Your task to perform on an android device: turn on sleep mode Image 0: 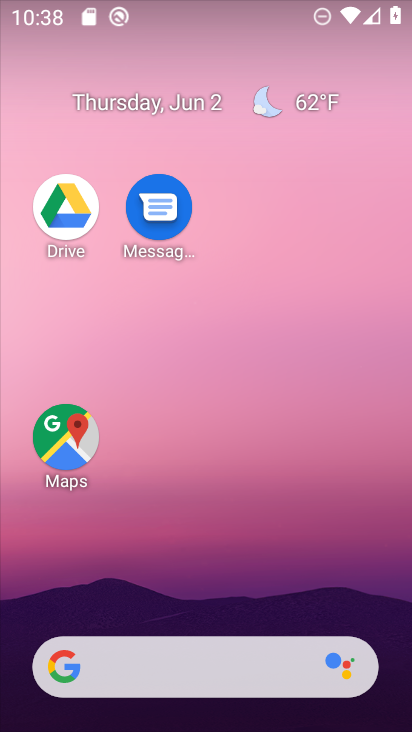
Step 0: drag from (222, 565) to (0, 262)
Your task to perform on an android device: turn on sleep mode Image 1: 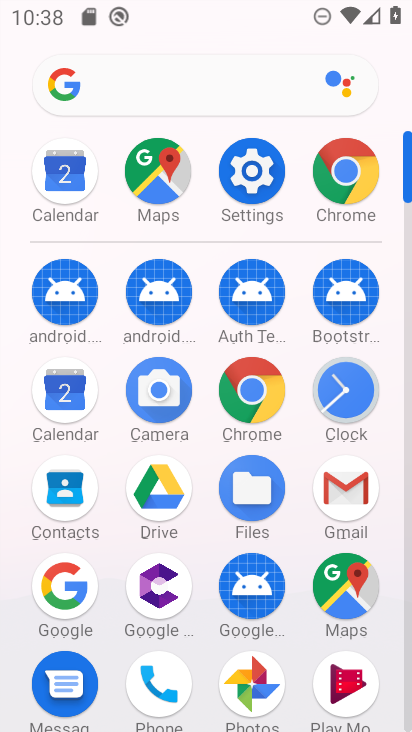
Step 1: click (270, 255)
Your task to perform on an android device: turn on sleep mode Image 2: 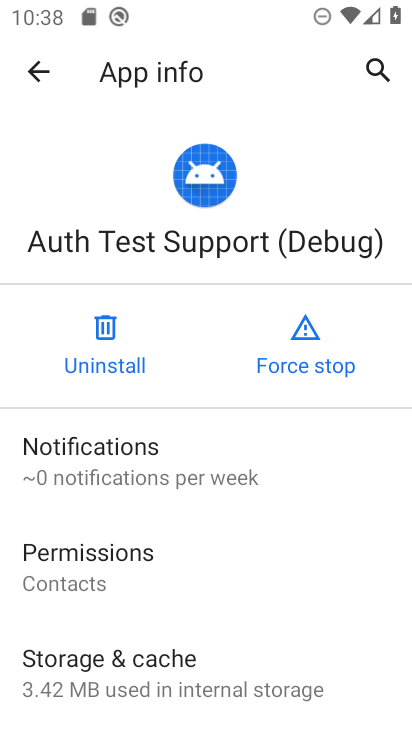
Step 2: click (31, 73)
Your task to perform on an android device: turn on sleep mode Image 3: 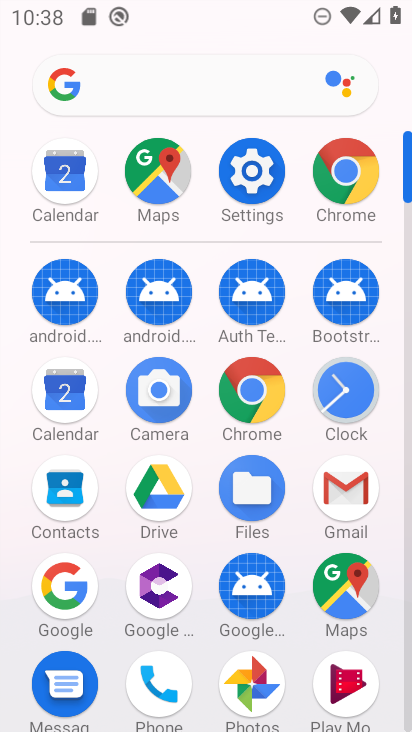
Step 3: click (276, 165)
Your task to perform on an android device: turn on sleep mode Image 4: 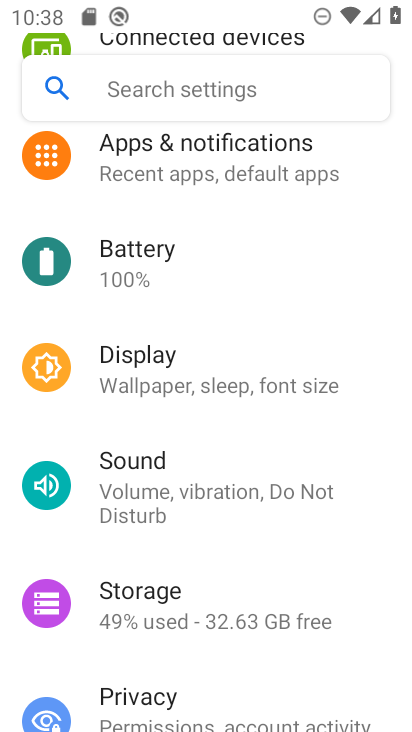
Step 4: click (149, 401)
Your task to perform on an android device: turn on sleep mode Image 5: 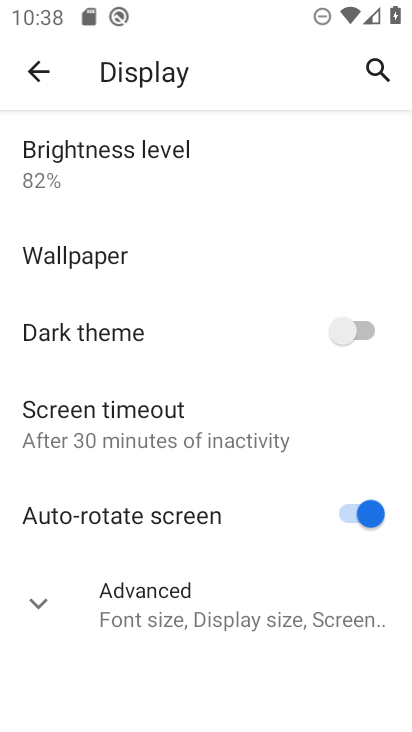
Step 5: task complete